Your task to perform on an android device: toggle data saver in the chrome app Image 0: 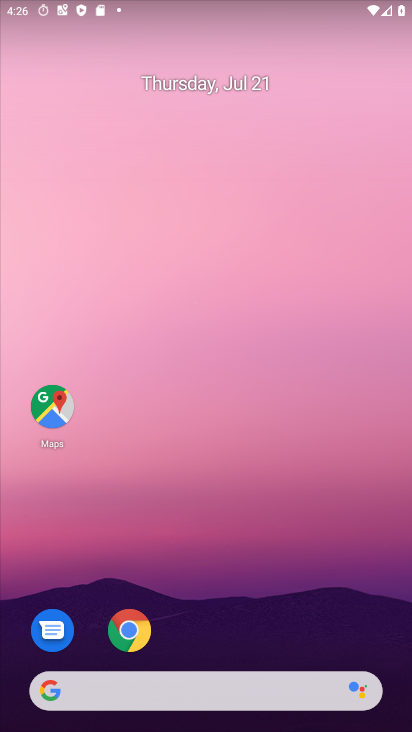
Step 0: click (129, 630)
Your task to perform on an android device: toggle data saver in the chrome app Image 1: 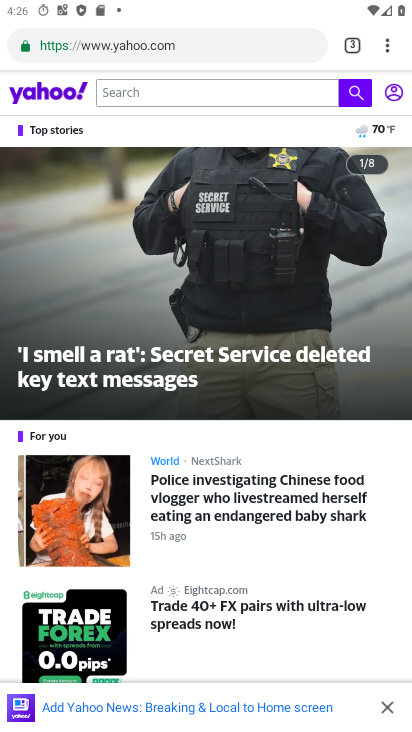
Step 1: click (387, 46)
Your task to perform on an android device: toggle data saver in the chrome app Image 2: 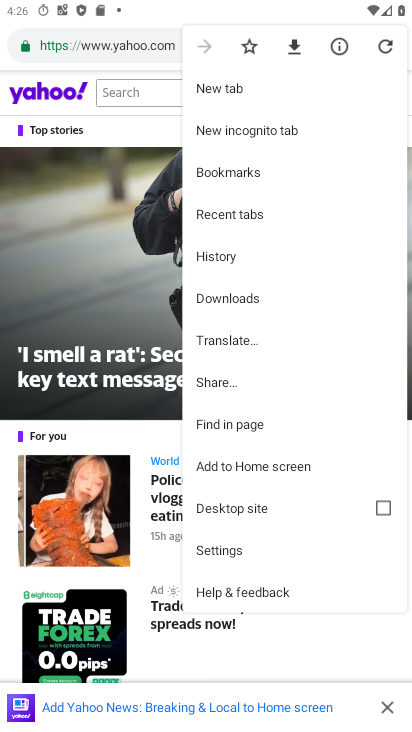
Step 2: click (225, 552)
Your task to perform on an android device: toggle data saver in the chrome app Image 3: 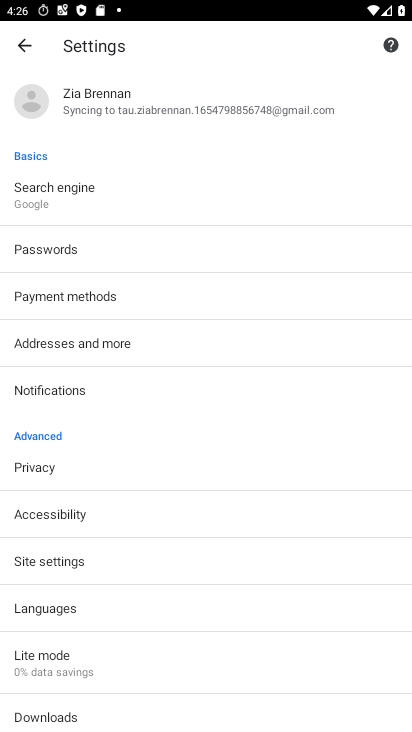
Step 3: click (53, 657)
Your task to perform on an android device: toggle data saver in the chrome app Image 4: 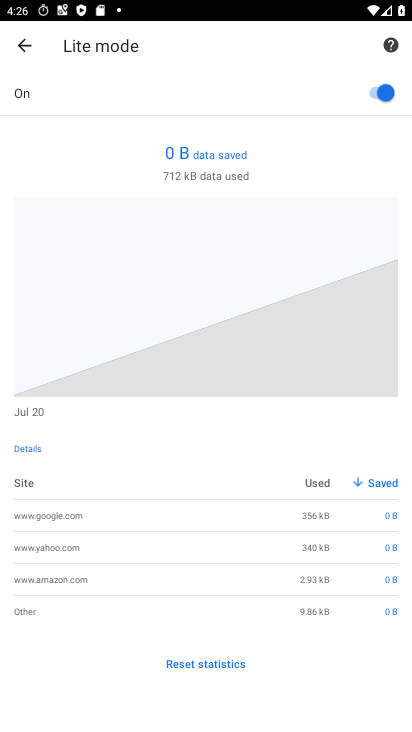
Step 4: click (379, 94)
Your task to perform on an android device: toggle data saver in the chrome app Image 5: 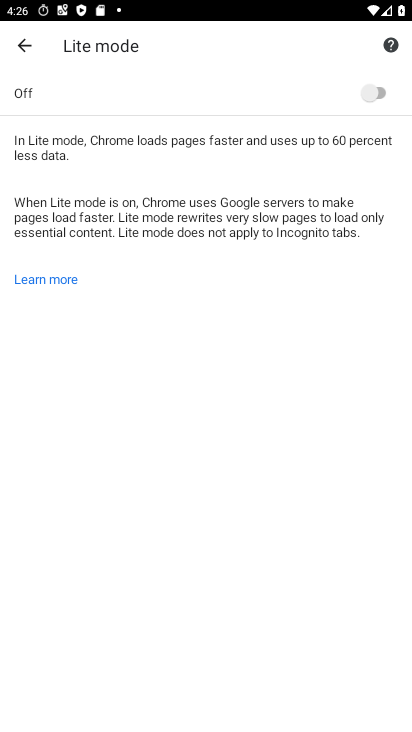
Step 5: task complete